Your task to perform on an android device: Search for sushi restaurants on Maps Image 0: 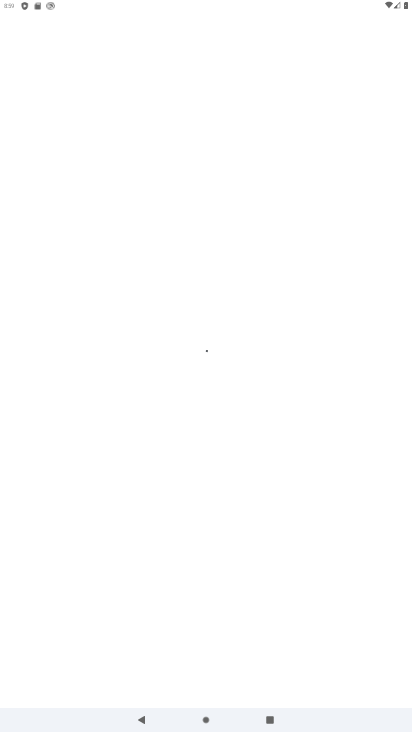
Step 0: press home button
Your task to perform on an android device: Search for sushi restaurants on Maps Image 1: 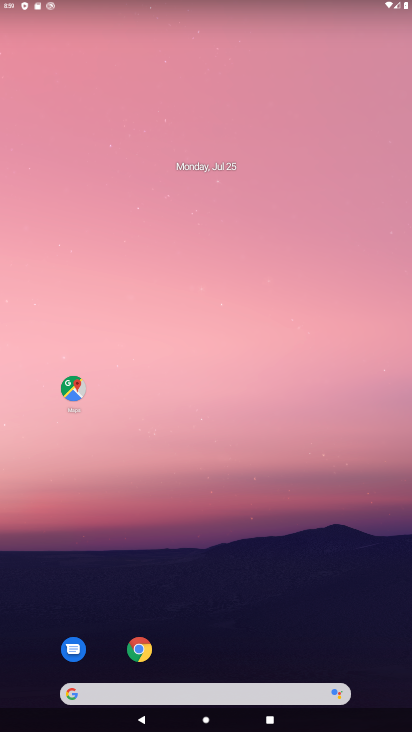
Step 1: drag from (209, 653) to (132, 40)
Your task to perform on an android device: Search for sushi restaurants on Maps Image 2: 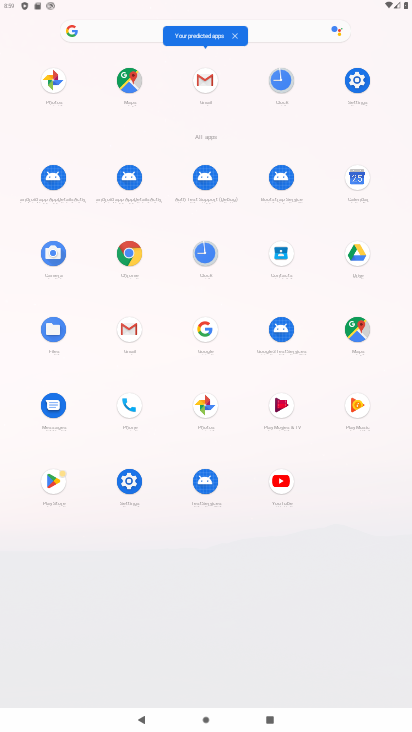
Step 2: click (360, 321)
Your task to perform on an android device: Search for sushi restaurants on Maps Image 3: 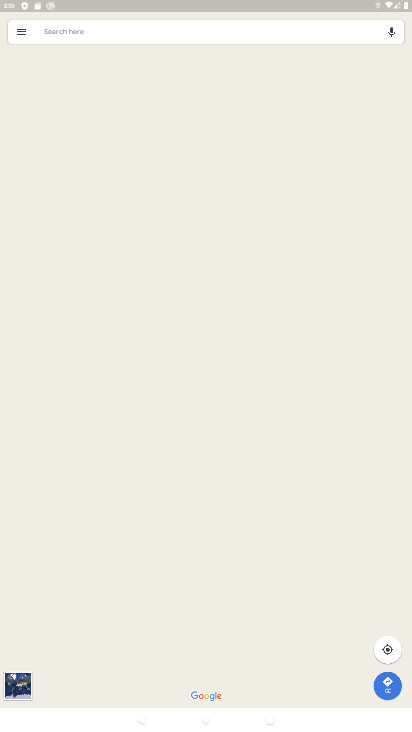
Step 3: click (149, 30)
Your task to perform on an android device: Search for sushi restaurants on Maps Image 4: 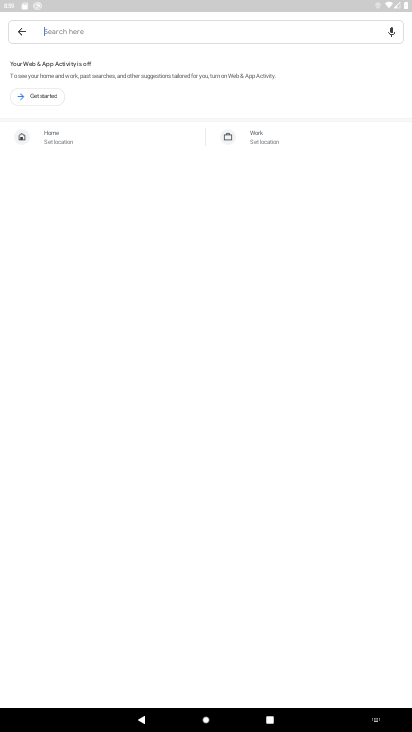
Step 4: click (41, 91)
Your task to perform on an android device: Search for sushi restaurants on Maps Image 5: 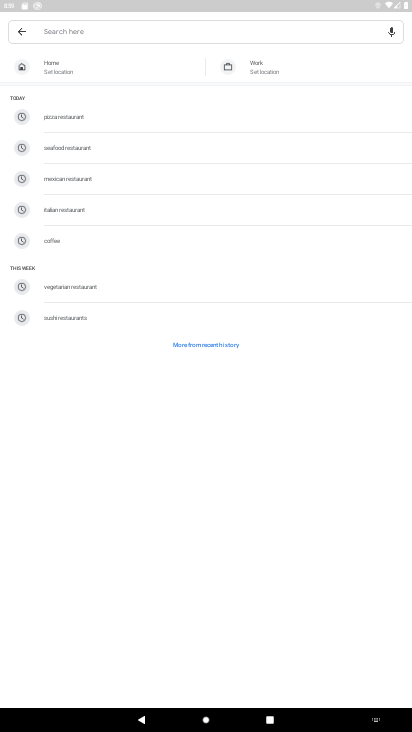
Step 5: click (58, 314)
Your task to perform on an android device: Search for sushi restaurants on Maps Image 6: 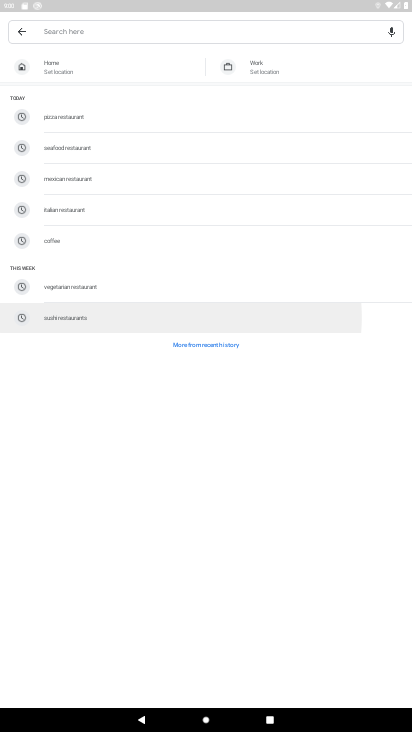
Step 6: click (58, 314)
Your task to perform on an android device: Search for sushi restaurants on Maps Image 7: 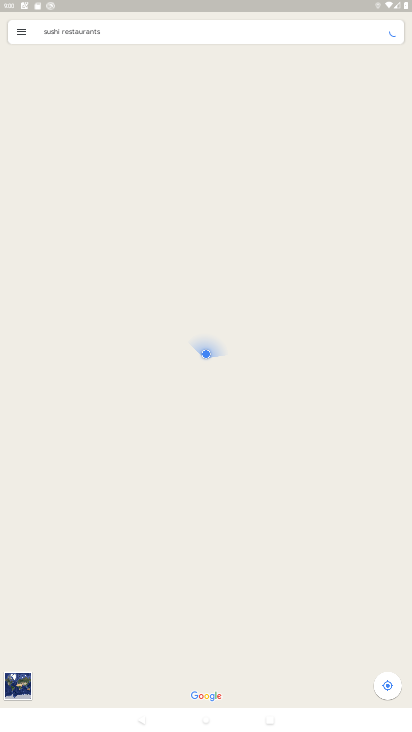
Step 7: task complete